Your task to perform on an android device: check storage Image 0: 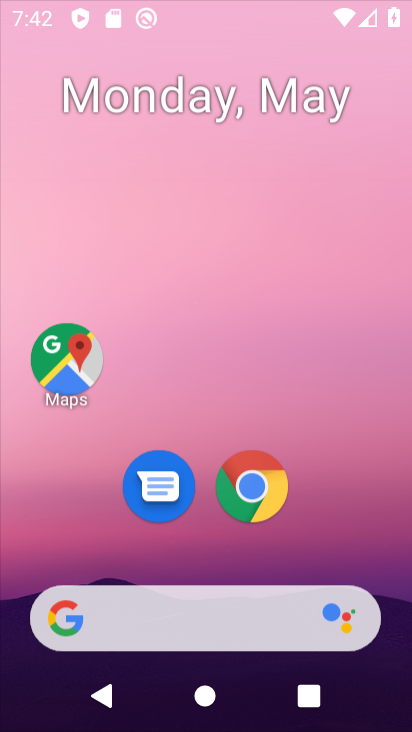
Step 0: press home button
Your task to perform on an android device: check storage Image 1: 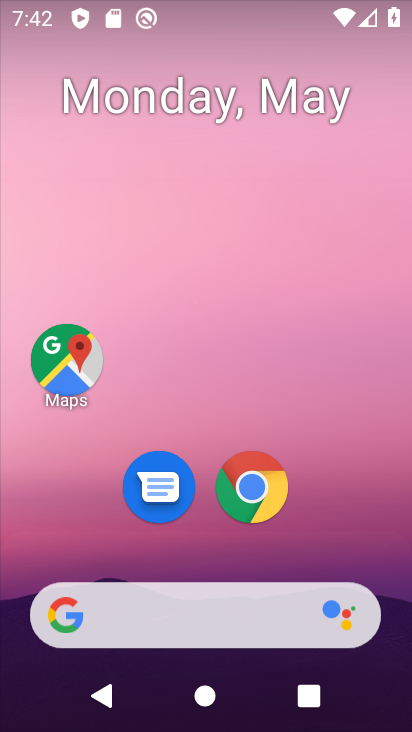
Step 1: drag from (349, 501) to (319, 123)
Your task to perform on an android device: check storage Image 2: 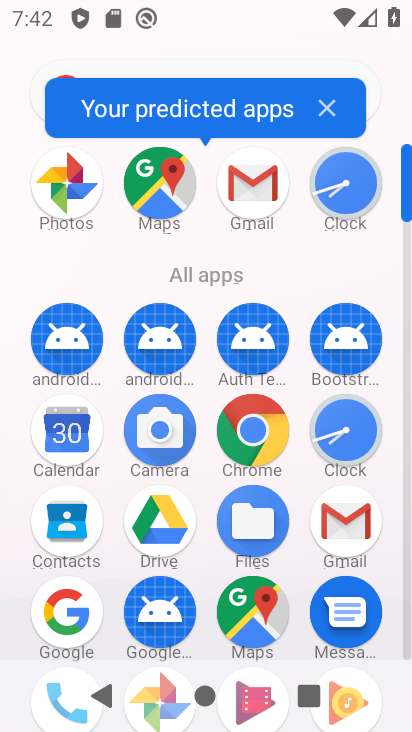
Step 2: drag from (399, 694) to (397, 247)
Your task to perform on an android device: check storage Image 3: 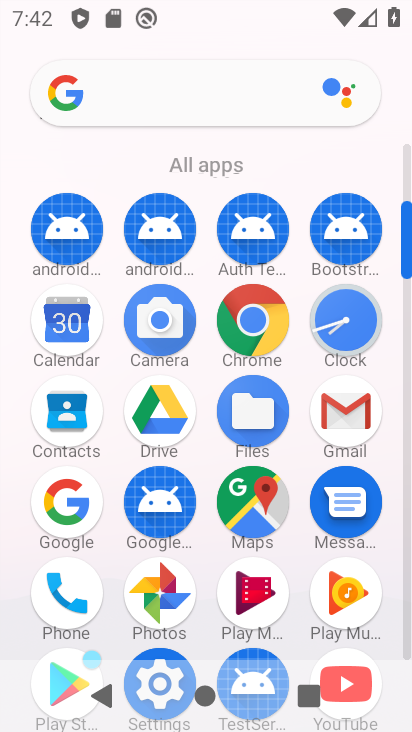
Step 3: click (151, 698)
Your task to perform on an android device: check storage Image 4: 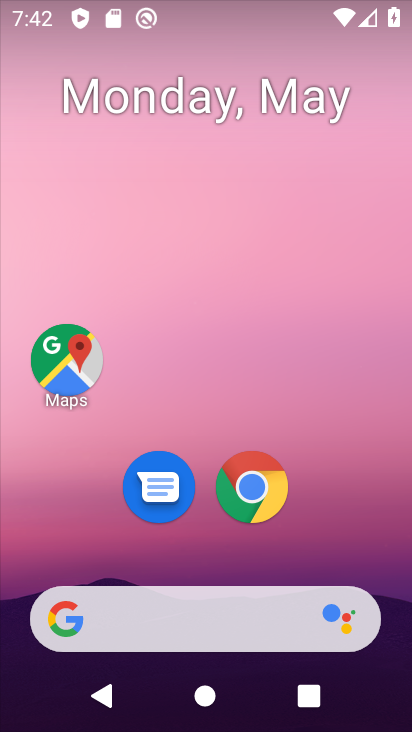
Step 4: drag from (334, 539) to (342, 0)
Your task to perform on an android device: check storage Image 5: 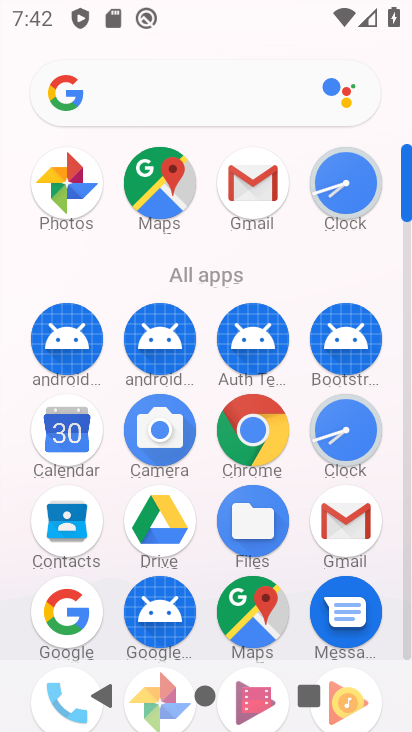
Step 5: drag from (392, 629) to (363, 157)
Your task to perform on an android device: check storage Image 6: 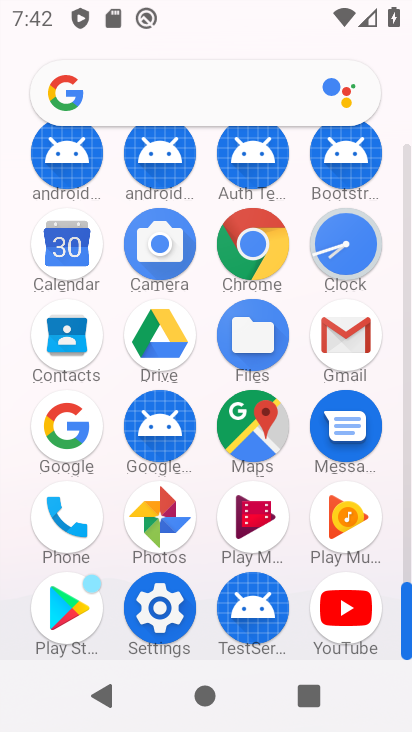
Step 6: click (157, 608)
Your task to perform on an android device: check storage Image 7: 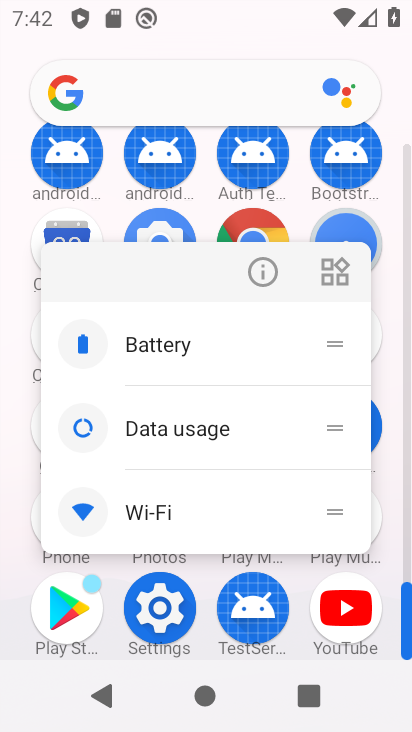
Step 7: click (162, 601)
Your task to perform on an android device: check storage Image 8: 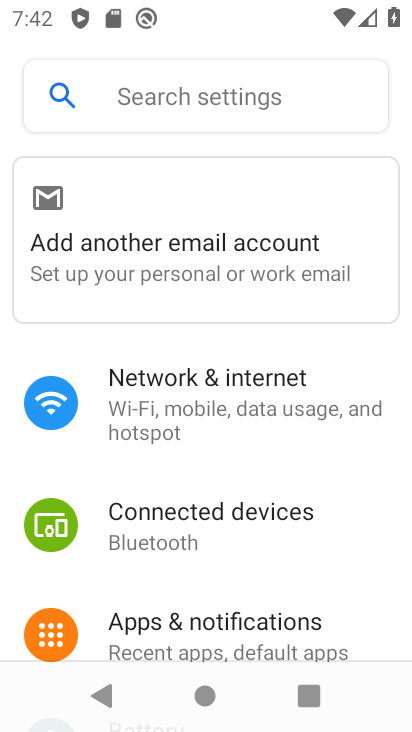
Step 8: drag from (163, 596) to (169, 213)
Your task to perform on an android device: check storage Image 9: 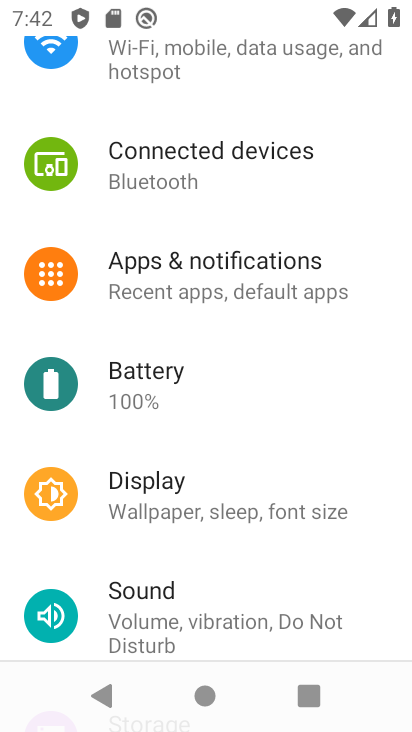
Step 9: drag from (322, 464) to (346, 187)
Your task to perform on an android device: check storage Image 10: 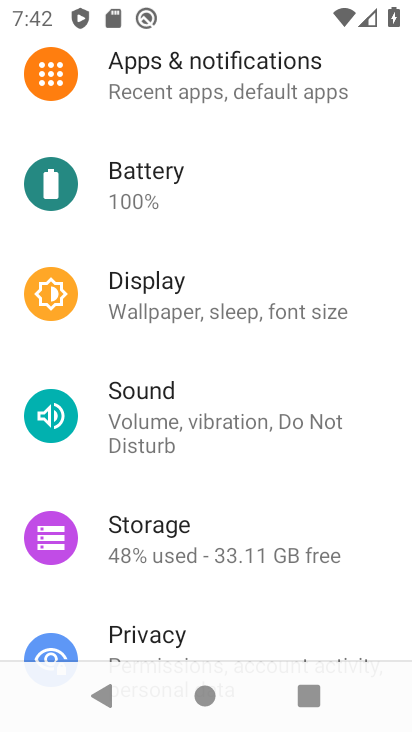
Step 10: click (161, 535)
Your task to perform on an android device: check storage Image 11: 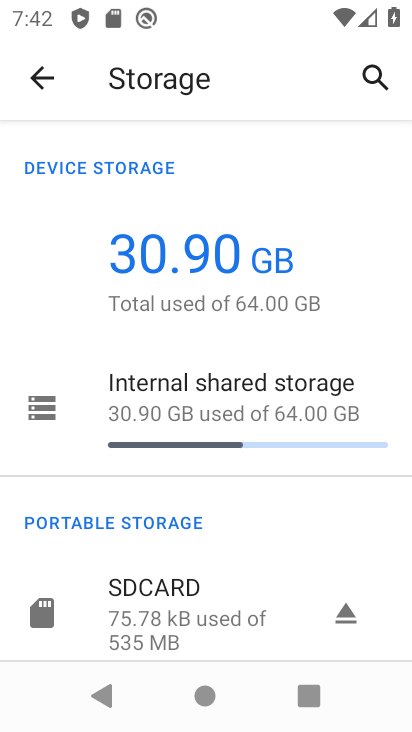
Step 11: task complete